Your task to perform on an android device: Go to sound settings Image 0: 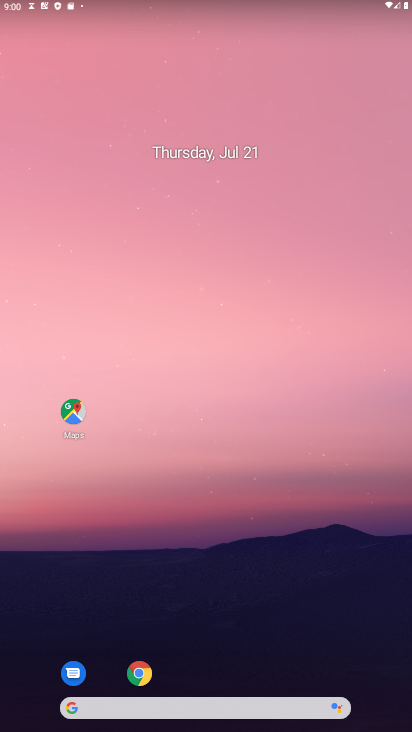
Step 0: drag from (345, 653) to (353, 336)
Your task to perform on an android device: Go to sound settings Image 1: 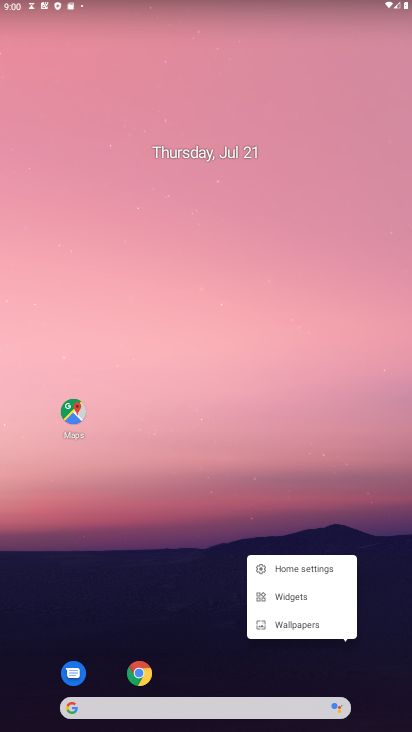
Step 1: click (240, 444)
Your task to perform on an android device: Go to sound settings Image 2: 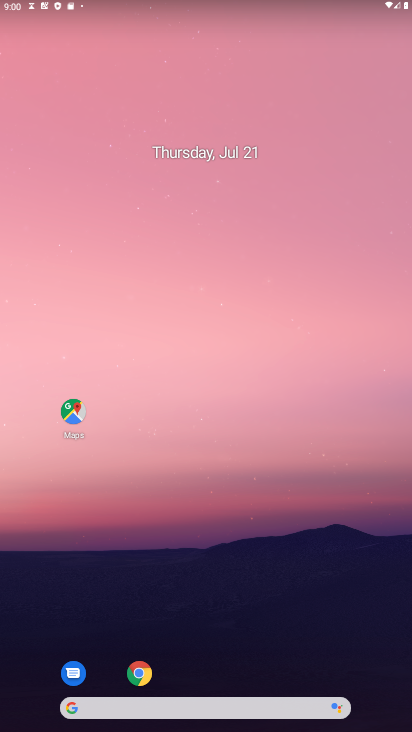
Step 2: drag from (282, 593) to (271, 114)
Your task to perform on an android device: Go to sound settings Image 3: 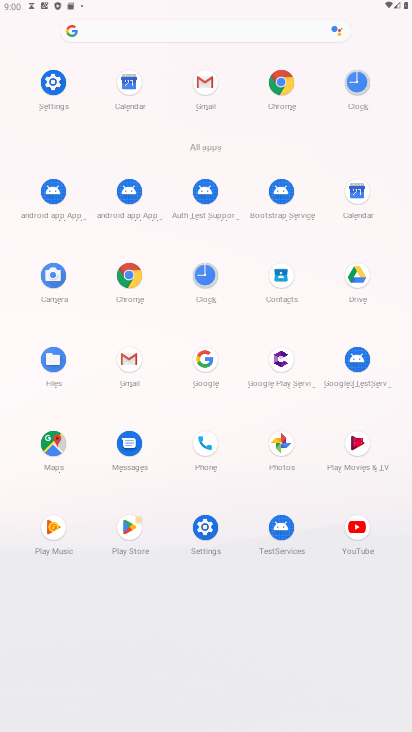
Step 3: click (210, 517)
Your task to perform on an android device: Go to sound settings Image 4: 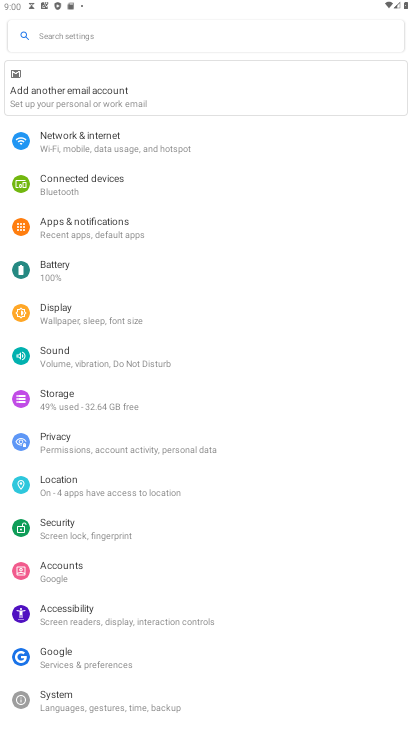
Step 4: click (77, 361)
Your task to perform on an android device: Go to sound settings Image 5: 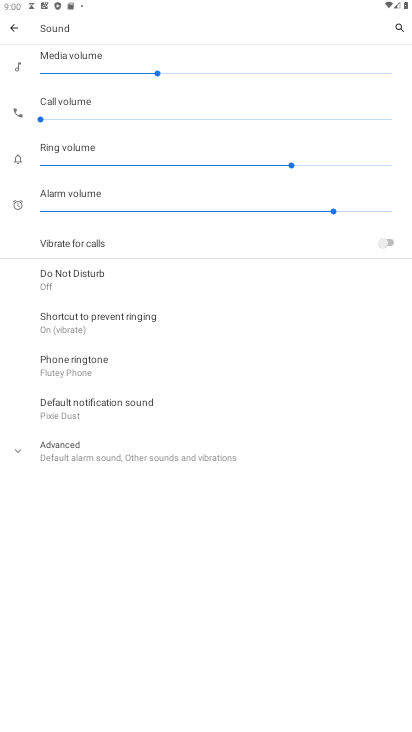
Step 5: task complete